Your task to perform on an android device: remove spam from my inbox in the gmail app Image 0: 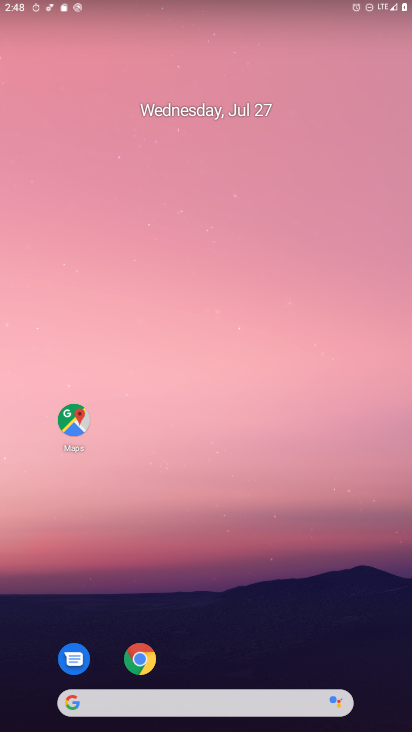
Step 0: drag from (245, 569) to (200, 37)
Your task to perform on an android device: remove spam from my inbox in the gmail app Image 1: 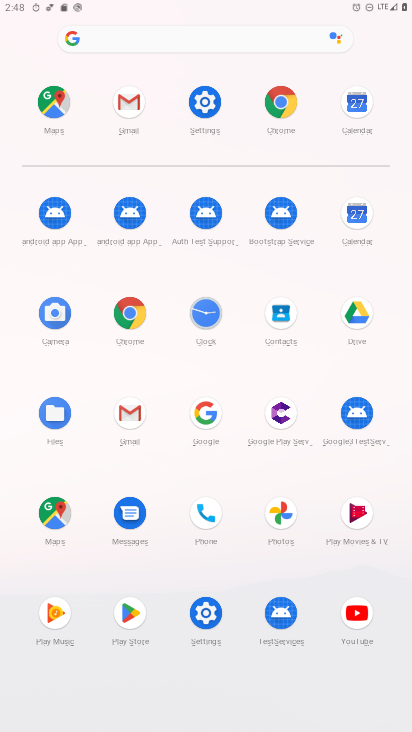
Step 1: click (131, 414)
Your task to perform on an android device: remove spam from my inbox in the gmail app Image 2: 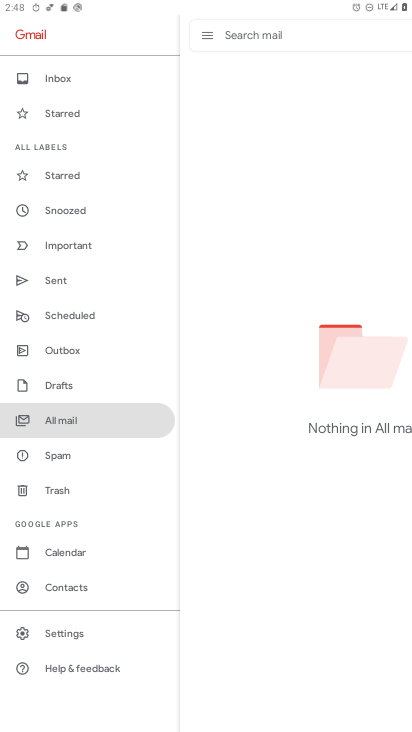
Step 2: click (67, 83)
Your task to perform on an android device: remove spam from my inbox in the gmail app Image 3: 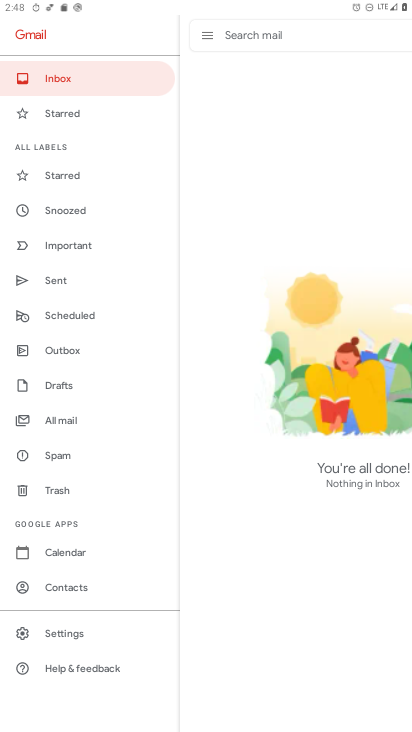
Step 3: task complete